Your task to perform on an android device: Open the map Image 0: 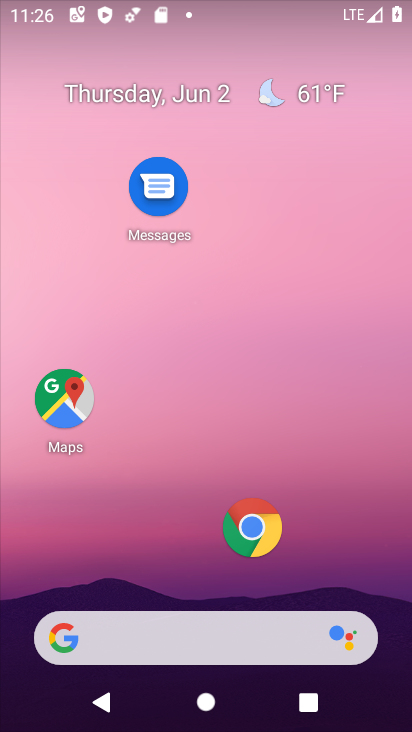
Step 0: press home button
Your task to perform on an android device: Open the map Image 1: 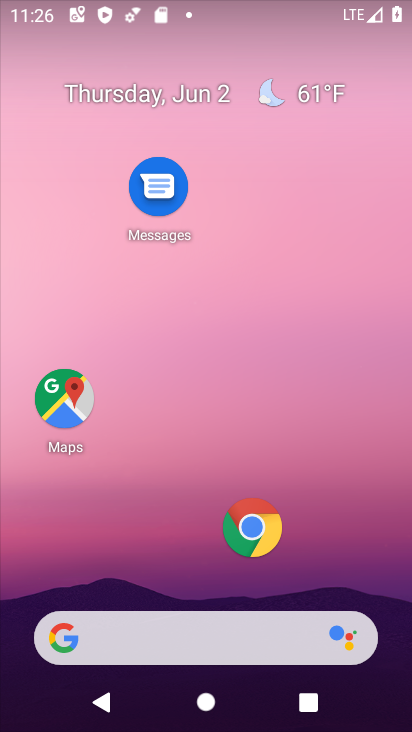
Step 1: drag from (209, 591) to (255, 105)
Your task to perform on an android device: Open the map Image 2: 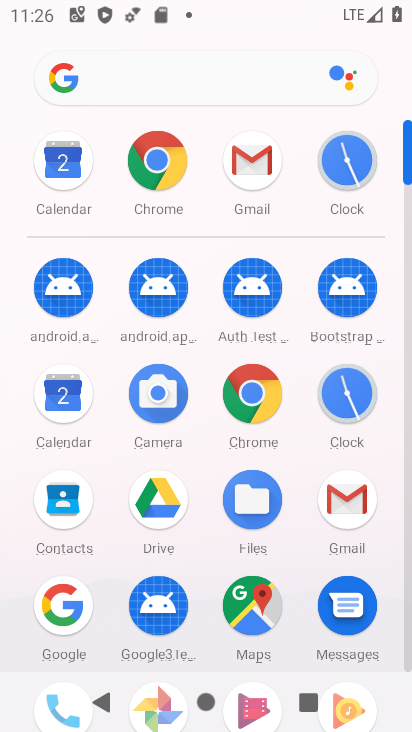
Step 2: click (253, 598)
Your task to perform on an android device: Open the map Image 3: 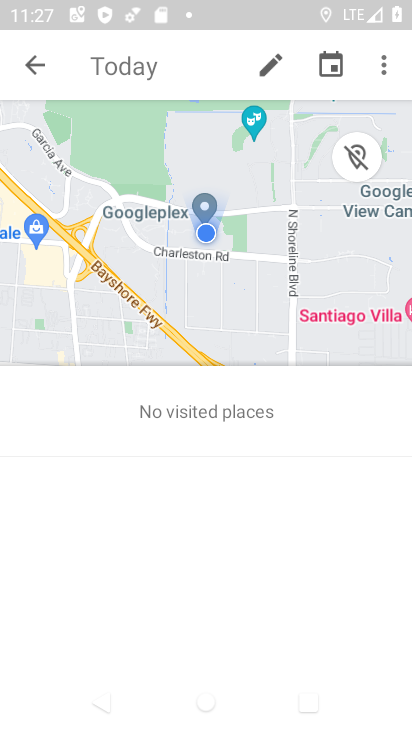
Step 3: click (38, 64)
Your task to perform on an android device: Open the map Image 4: 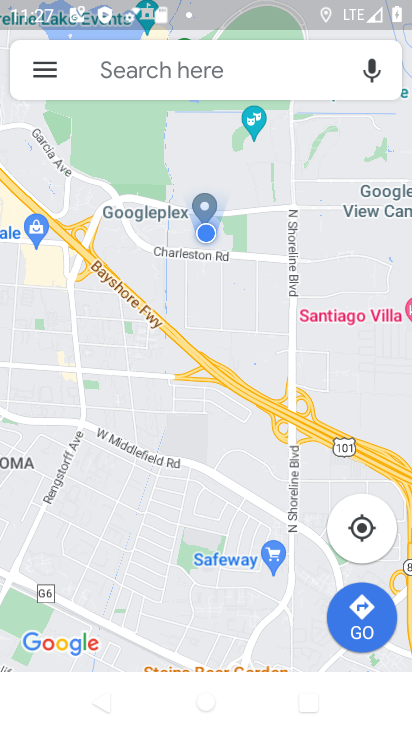
Step 4: task complete